Your task to perform on an android device: open app "Adobe Express: Graphic Design" (install if not already installed), go to login, and select forgot password Image 0: 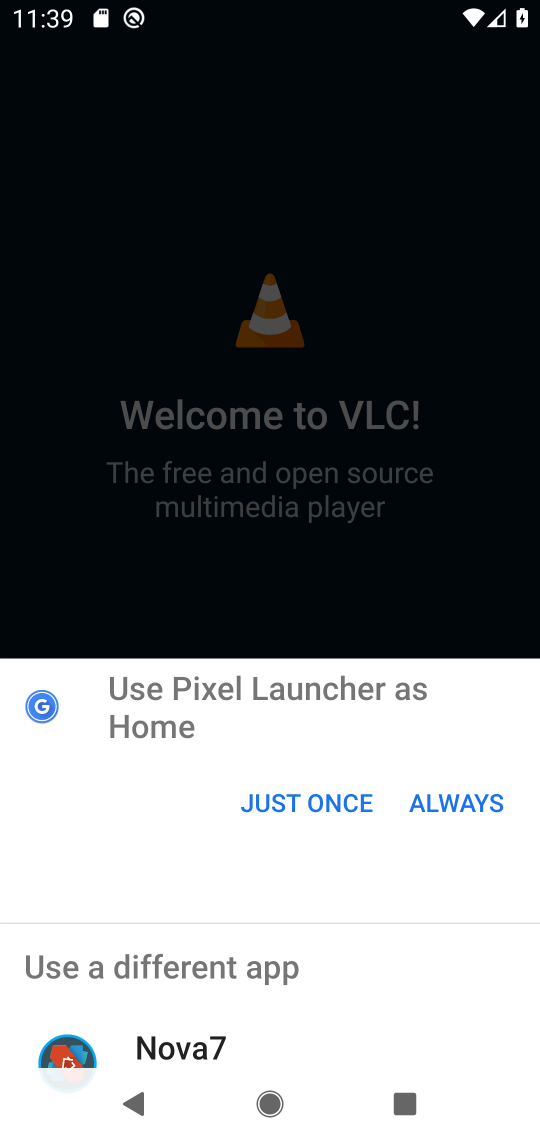
Step 0: click (442, 806)
Your task to perform on an android device: open app "Adobe Express: Graphic Design" (install if not already installed), go to login, and select forgot password Image 1: 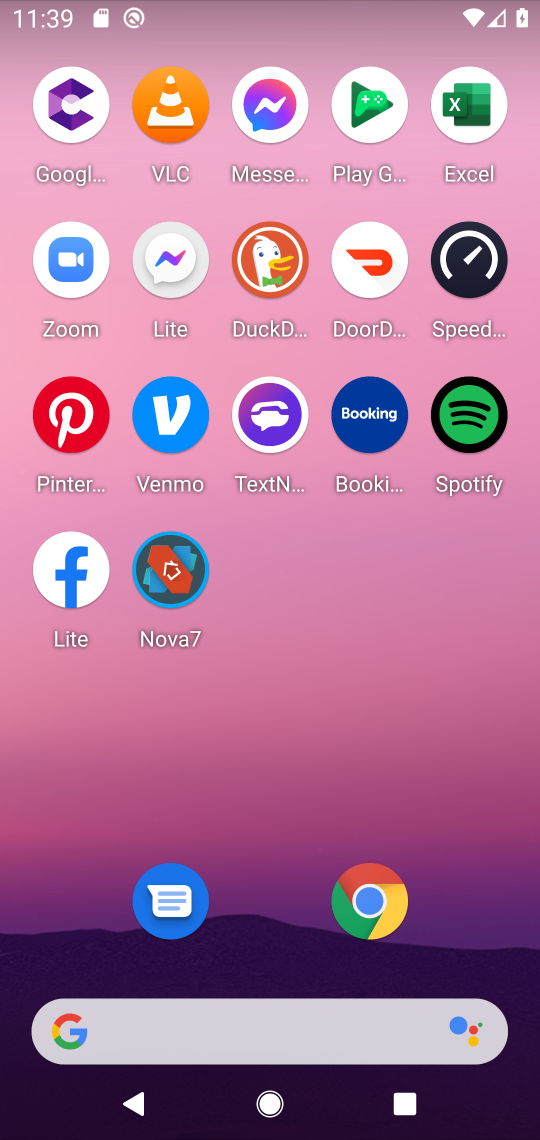
Step 1: drag from (267, 954) to (341, 21)
Your task to perform on an android device: open app "Adobe Express: Graphic Design" (install if not already installed), go to login, and select forgot password Image 2: 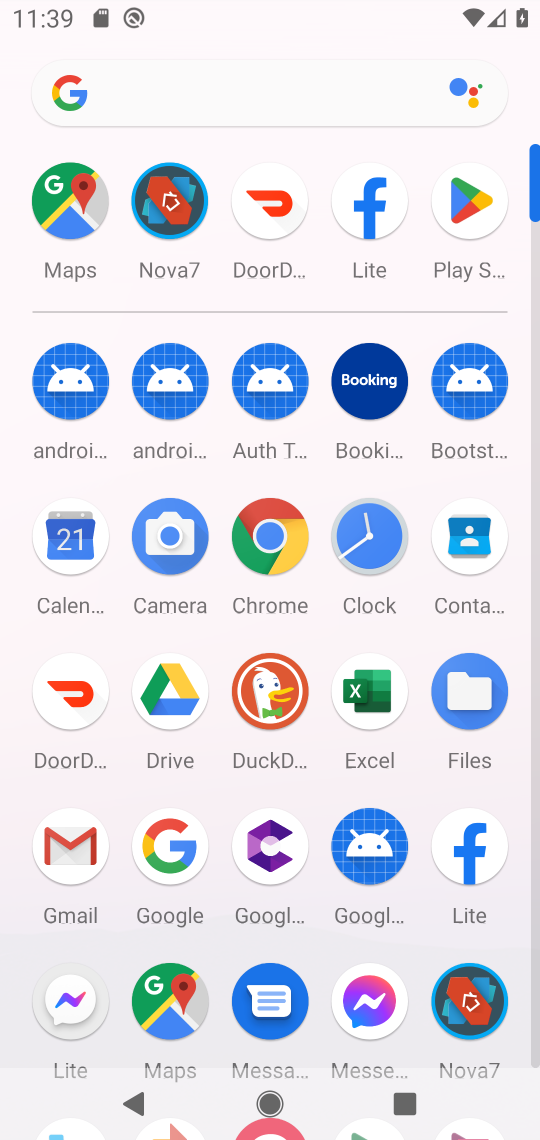
Step 2: click (485, 246)
Your task to perform on an android device: open app "Adobe Express: Graphic Design" (install if not already installed), go to login, and select forgot password Image 3: 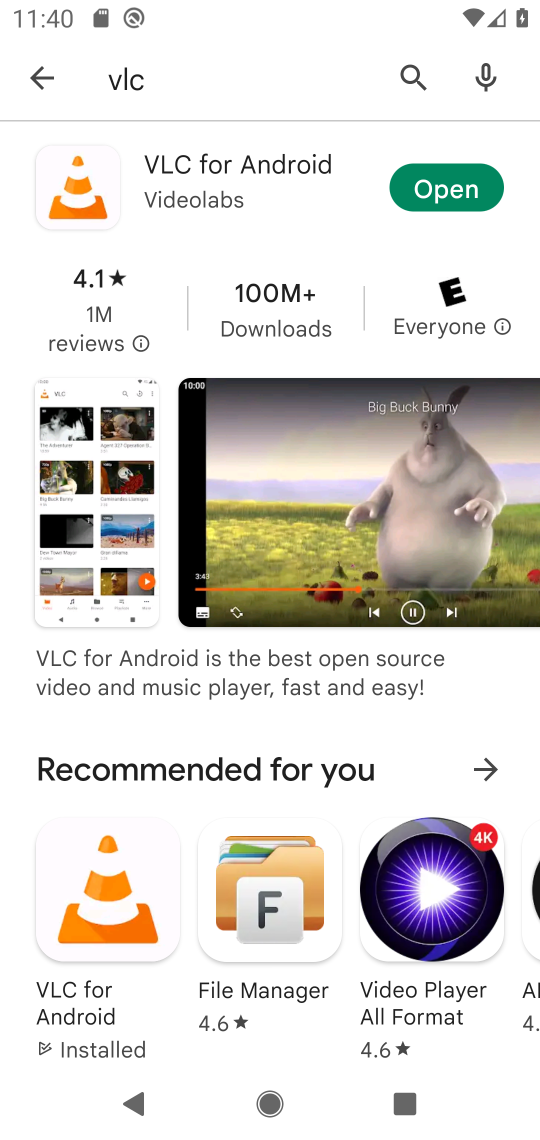
Step 3: click (435, 162)
Your task to perform on an android device: open app "Adobe Express: Graphic Design" (install if not already installed), go to login, and select forgot password Image 4: 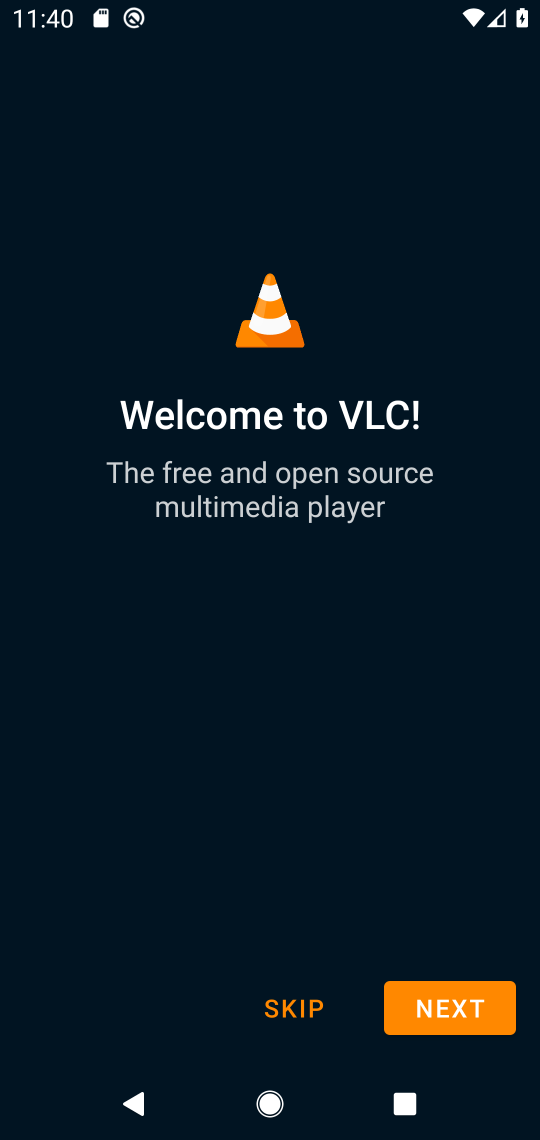
Step 4: press back button
Your task to perform on an android device: open app "Adobe Express: Graphic Design" (install if not already installed), go to login, and select forgot password Image 5: 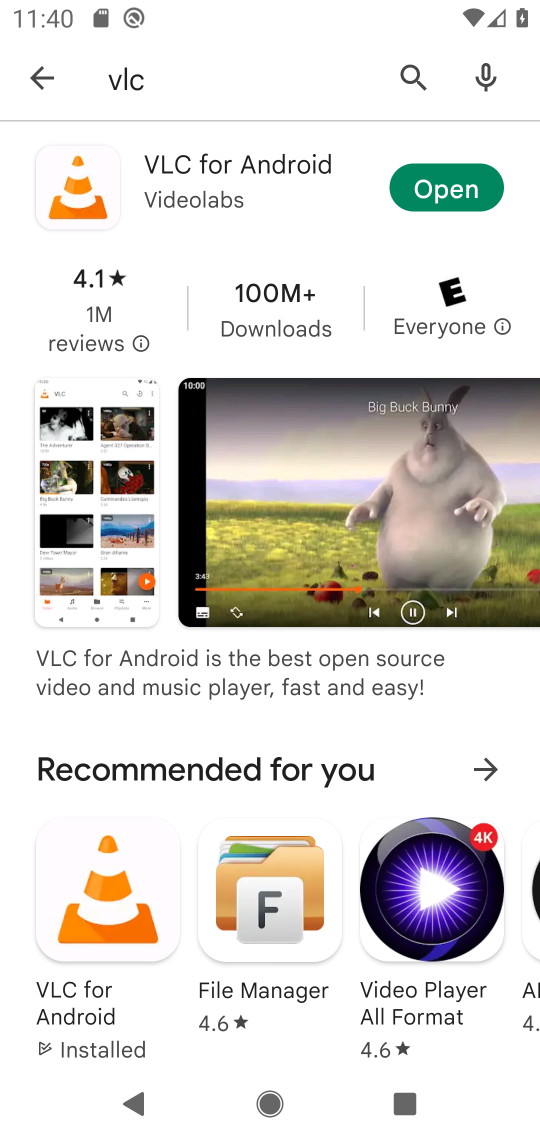
Step 5: click (408, 68)
Your task to perform on an android device: open app "Adobe Express: Graphic Design" (install if not already installed), go to login, and select forgot password Image 6: 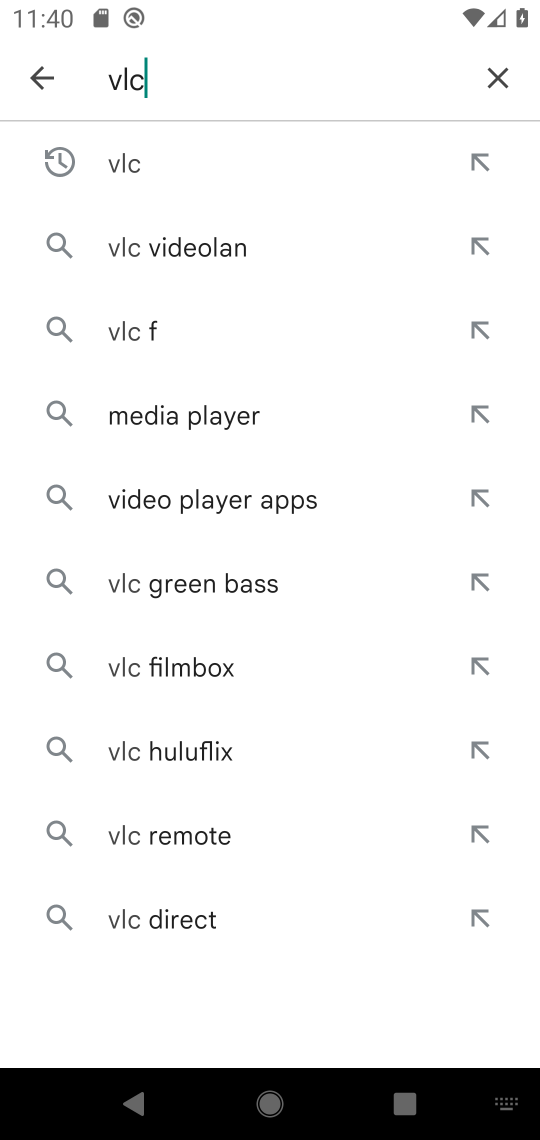
Step 6: click (496, 76)
Your task to perform on an android device: open app "Adobe Express: Graphic Design" (install if not already installed), go to login, and select forgot password Image 7: 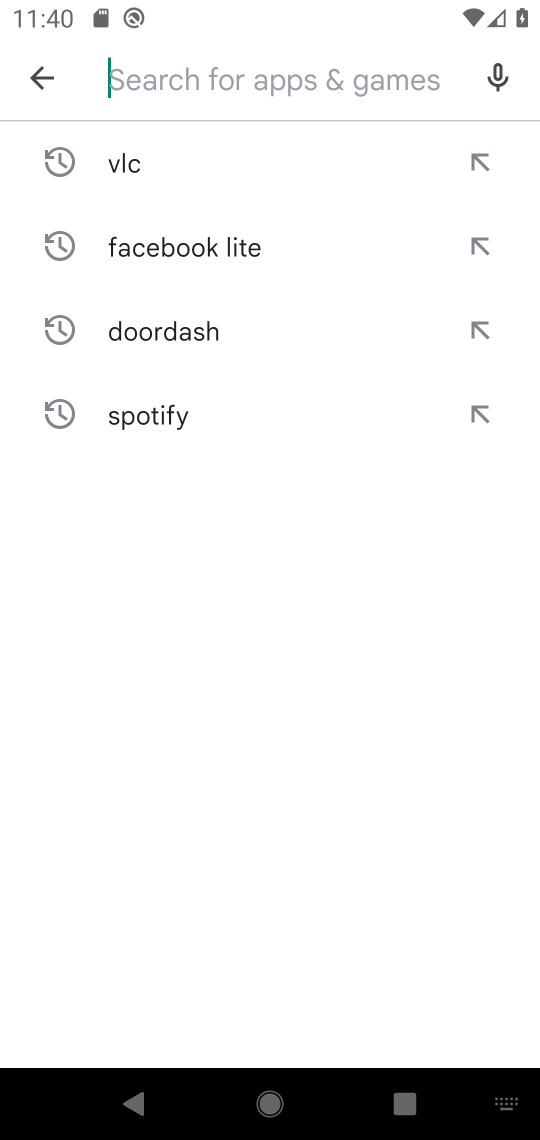
Step 7: type "adobe"
Your task to perform on an android device: open app "Adobe Express: Graphic Design" (install if not already installed), go to login, and select forgot password Image 8: 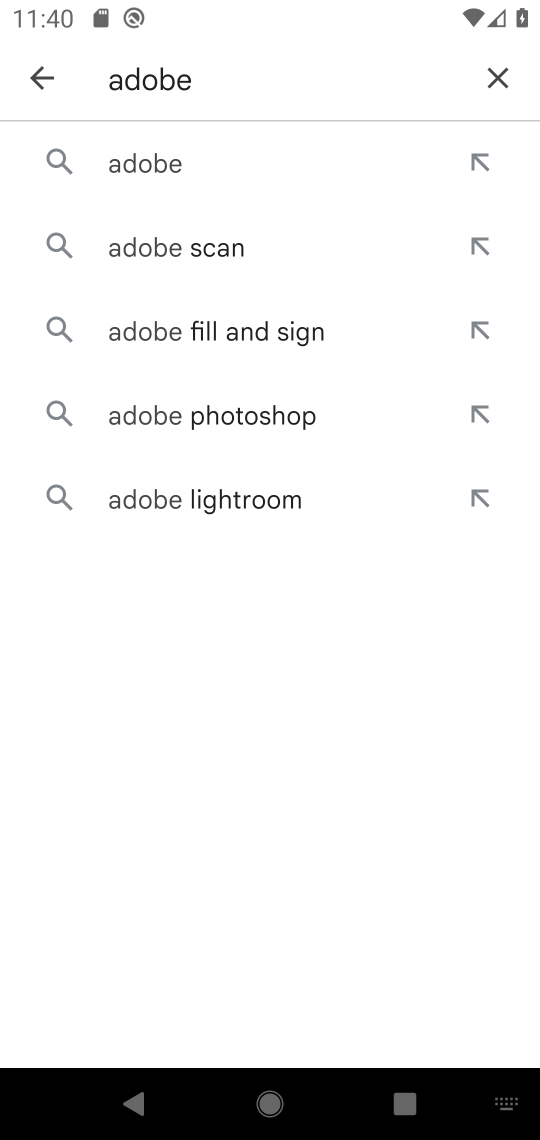
Step 8: click (211, 167)
Your task to perform on an android device: open app "Adobe Express: Graphic Design" (install if not already installed), go to login, and select forgot password Image 9: 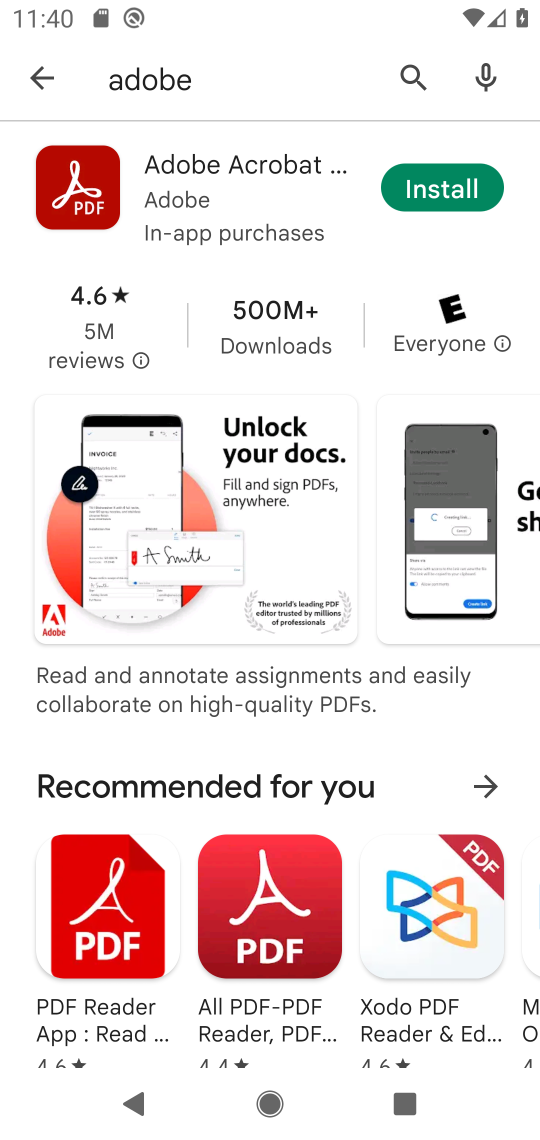
Step 9: click (405, 207)
Your task to perform on an android device: open app "Adobe Express: Graphic Design" (install if not already installed), go to login, and select forgot password Image 10: 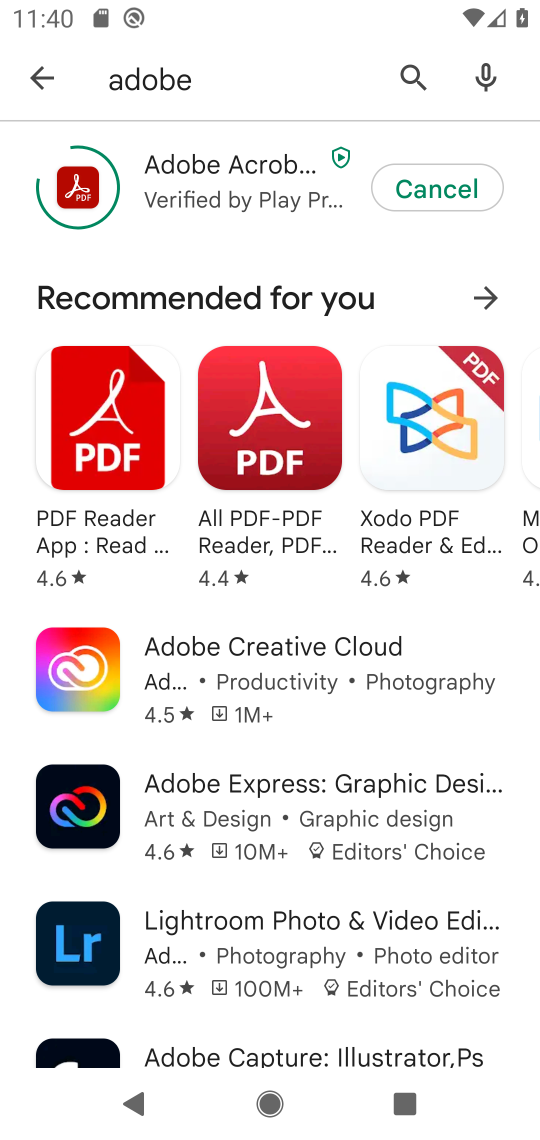
Step 10: task complete